Your task to perform on an android device: Turn off the flashlight Image 0: 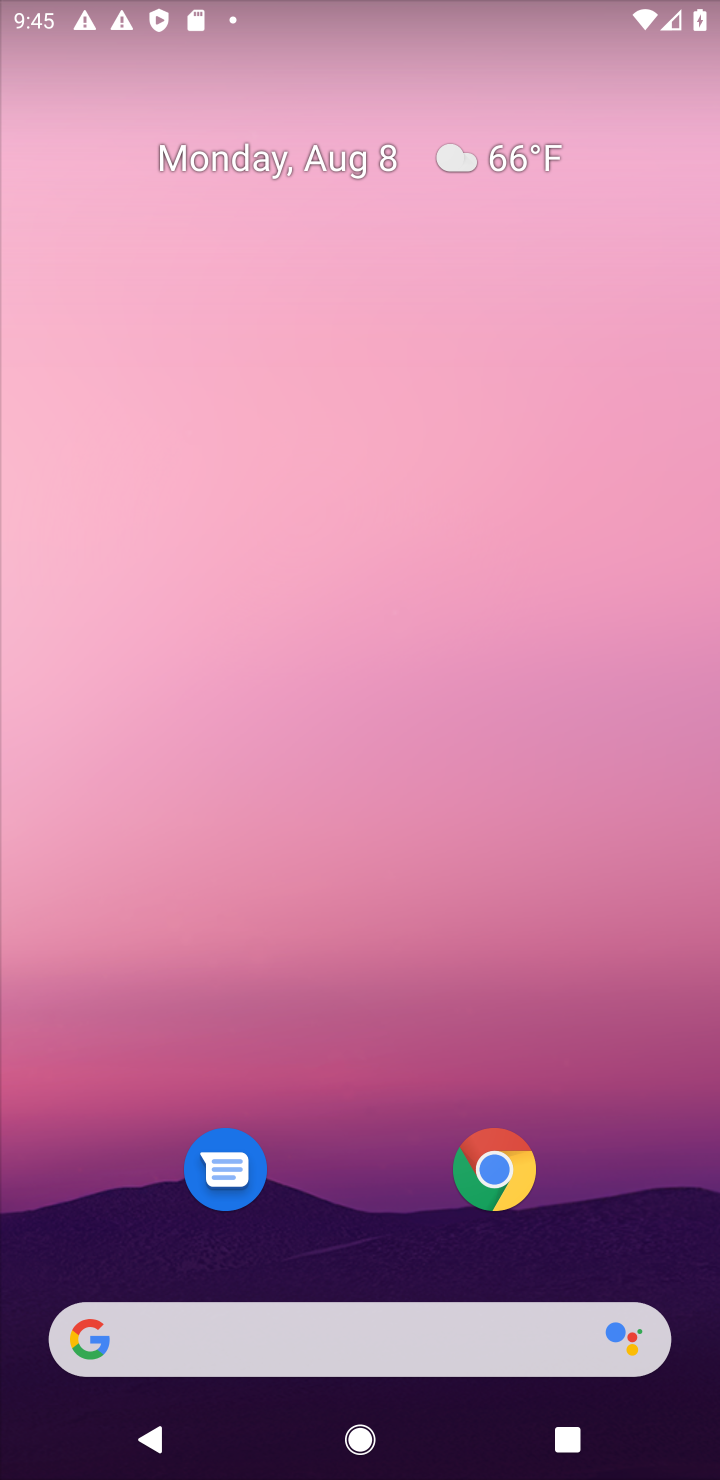
Step 0: drag from (341, 969) to (399, 233)
Your task to perform on an android device: Turn off the flashlight Image 1: 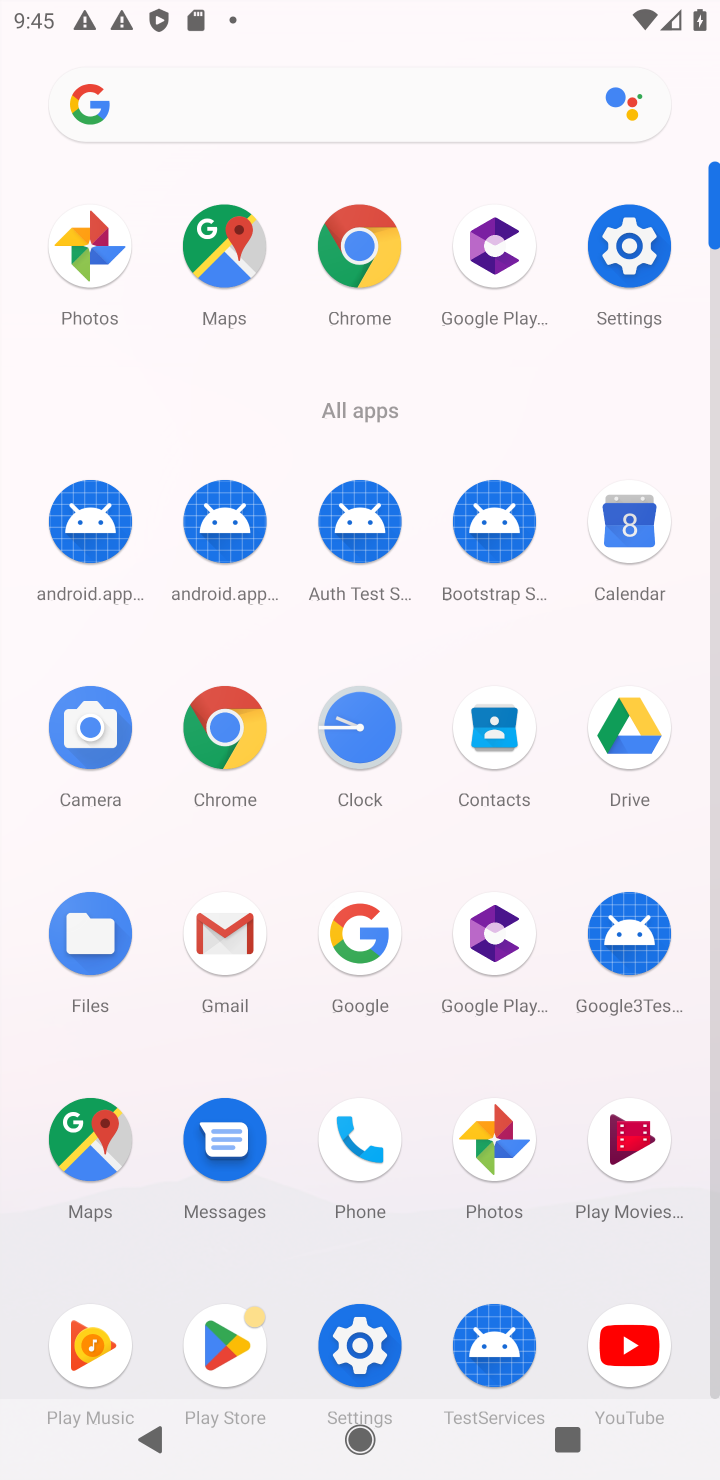
Step 1: click (648, 236)
Your task to perform on an android device: Turn off the flashlight Image 2: 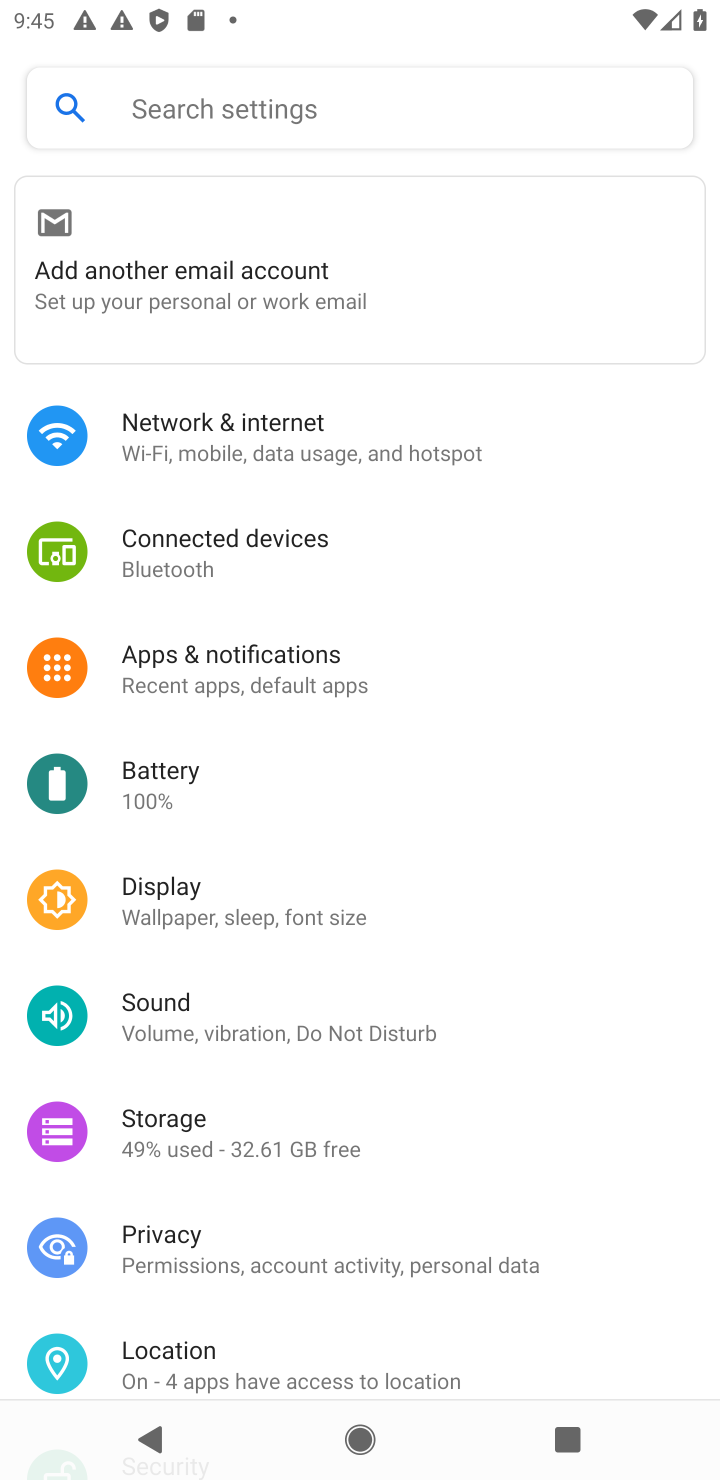
Step 2: click (221, 99)
Your task to perform on an android device: Turn off the flashlight Image 3: 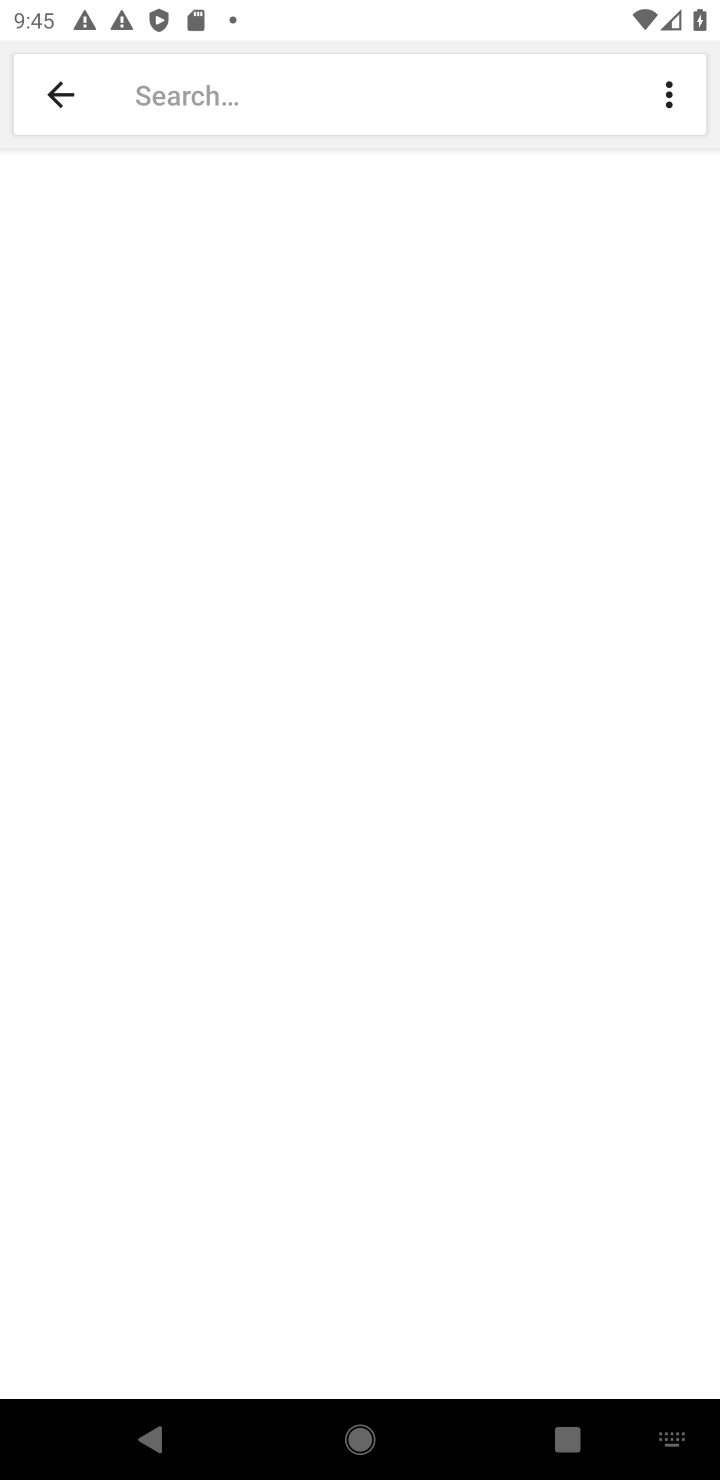
Step 3: type "flashlight"
Your task to perform on an android device: Turn off the flashlight Image 4: 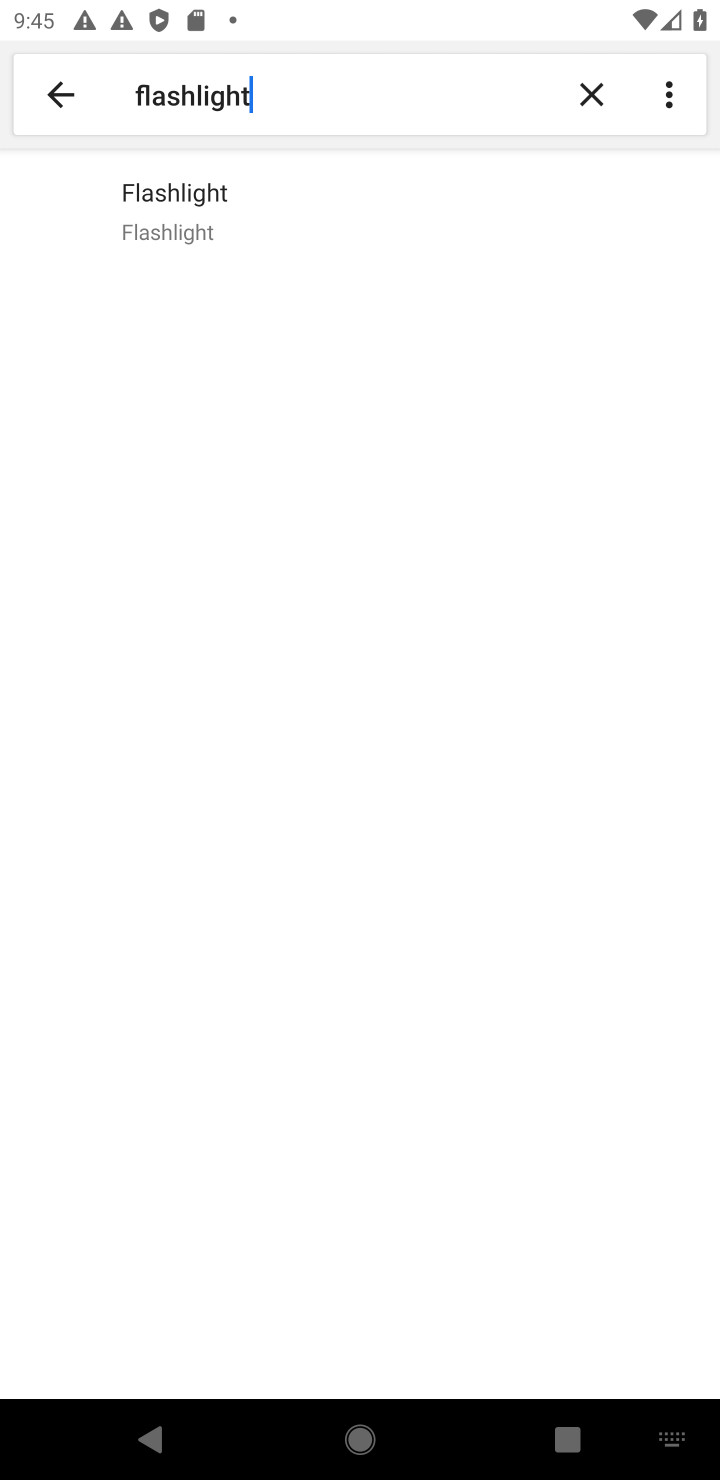
Step 4: click (200, 185)
Your task to perform on an android device: Turn off the flashlight Image 5: 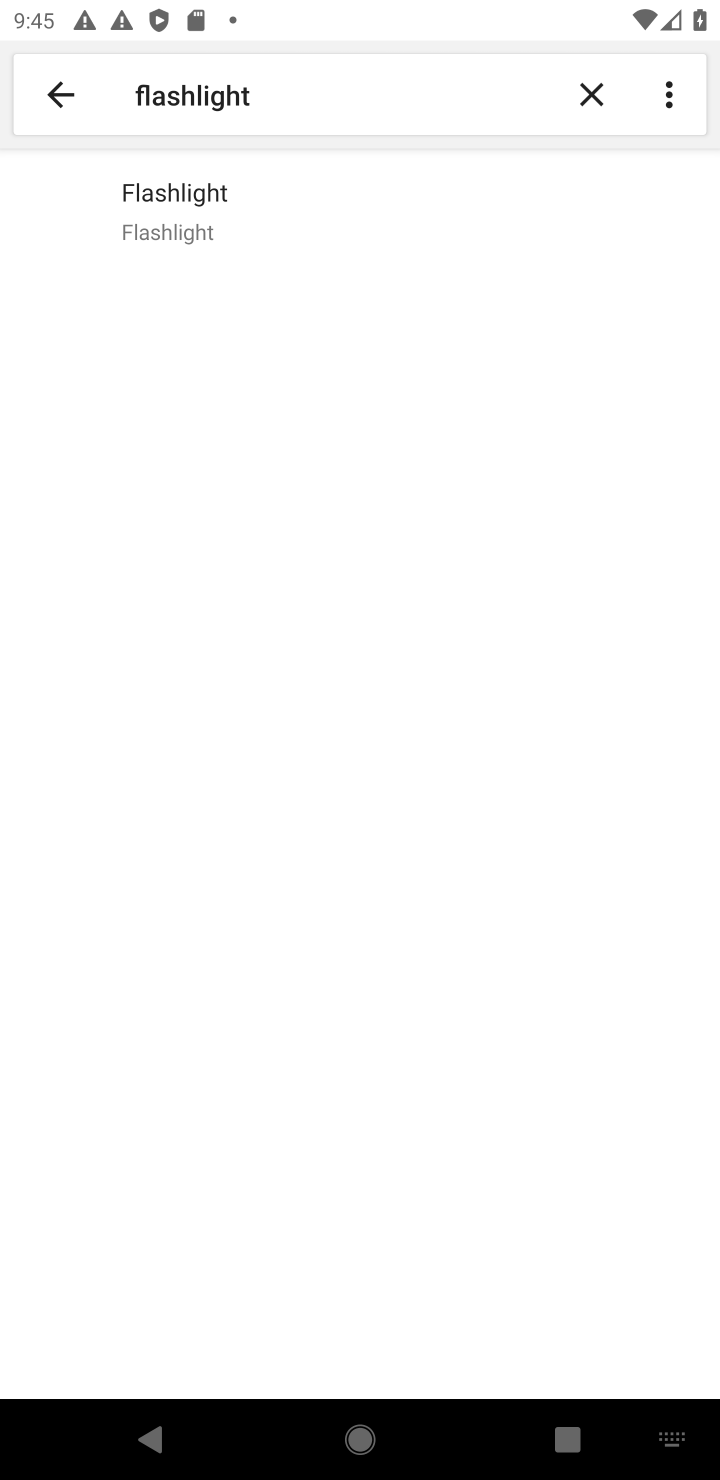
Step 5: click (200, 185)
Your task to perform on an android device: Turn off the flashlight Image 6: 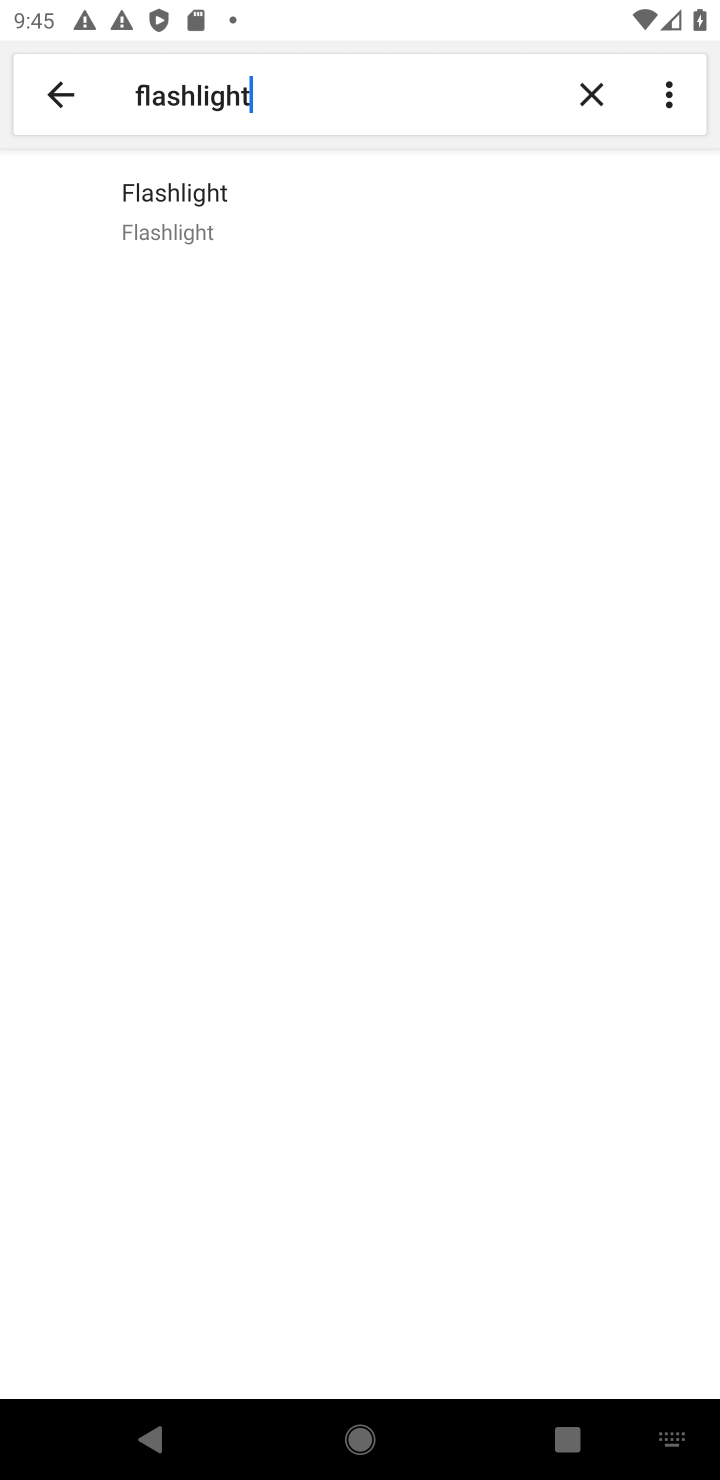
Step 6: task complete